Your task to perform on an android device: open chrome and create a bookmark for the current page Image 0: 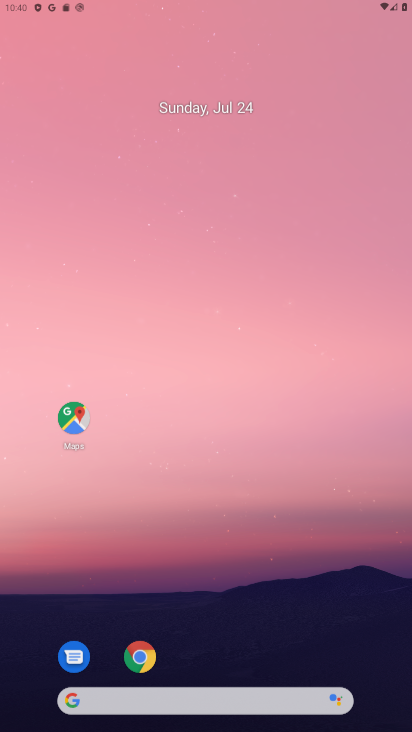
Step 0: click (274, 261)
Your task to perform on an android device: open chrome and create a bookmark for the current page Image 1: 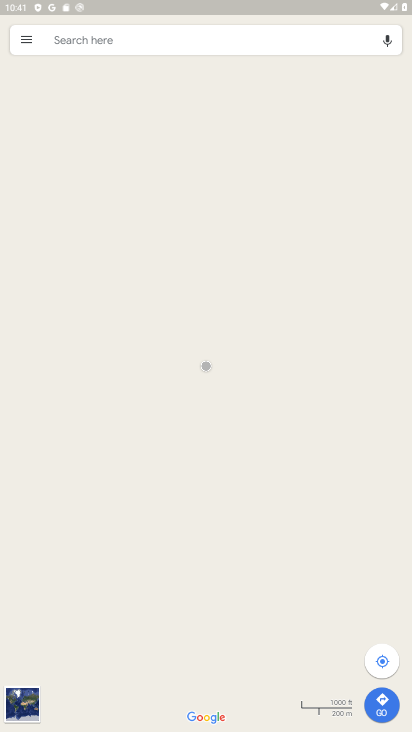
Step 1: press home button
Your task to perform on an android device: open chrome and create a bookmark for the current page Image 2: 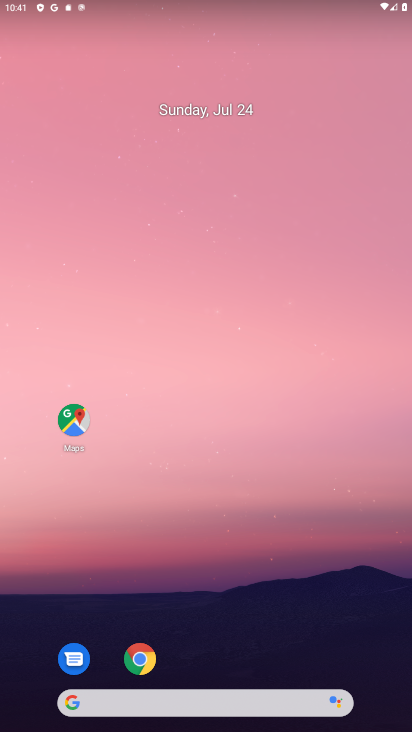
Step 2: click (141, 654)
Your task to perform on an android device: open chrome and create a bookmark for the current page Image 3: 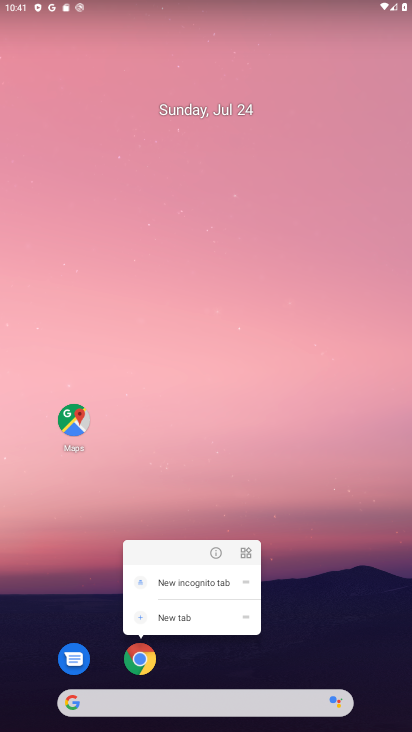
Step 3: click (144, 662)
Your task to perform on an android device: open chrome and create a bookmark for the current page Image 4: 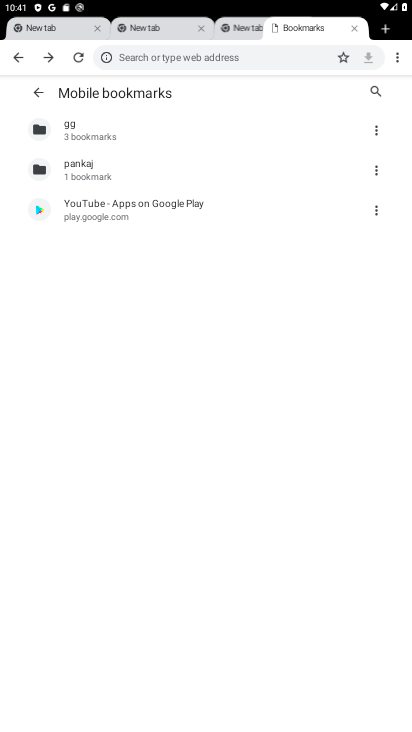
Step 4: click (394, 59)
Your task to perform on an android device: open chrome and create a bookmark for the current page Image 5: 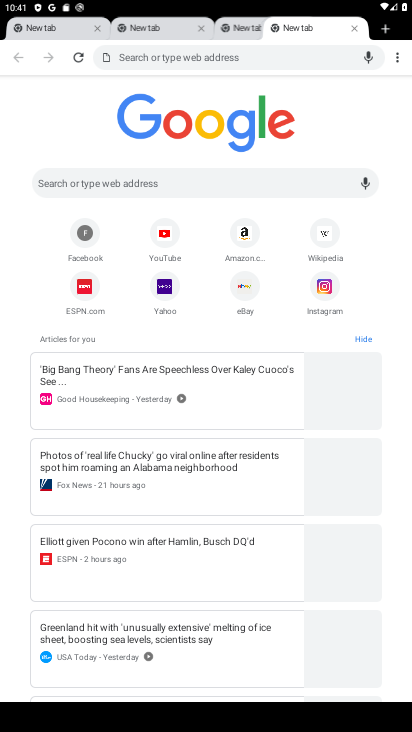
Step 5: click (394, 59)
Your task to perform on an android device: open chrome and create a bookmark for the current page Image 6: 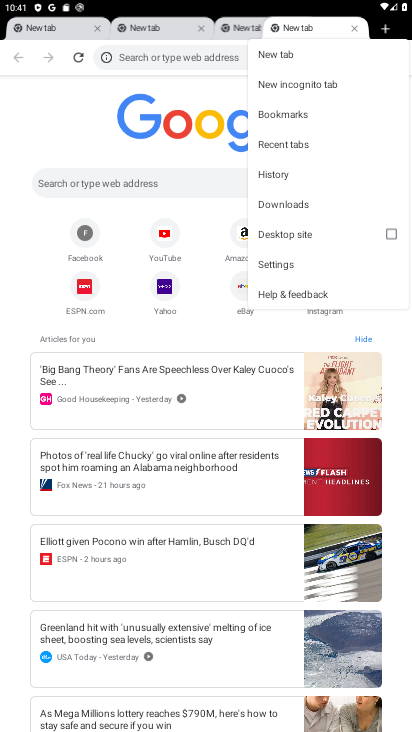
Step 6: click (176, 96)
Your task to perform on an android device: open chrome and create a bookmark for the current page Image 7: 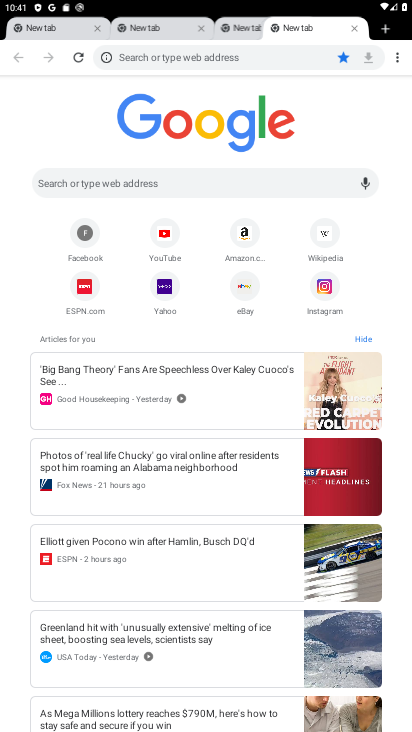
Step 7: click (343, 53)
Your task to perform on an android device: open chrome and create a bookmark for the current page Image 8: 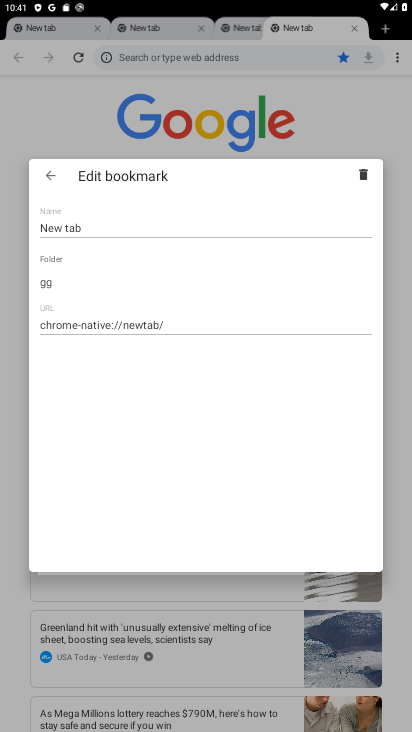
Step 8: click (343, 53)
Your task to perform on an android device: open chrome and create a bookmark for the current page Image 9: 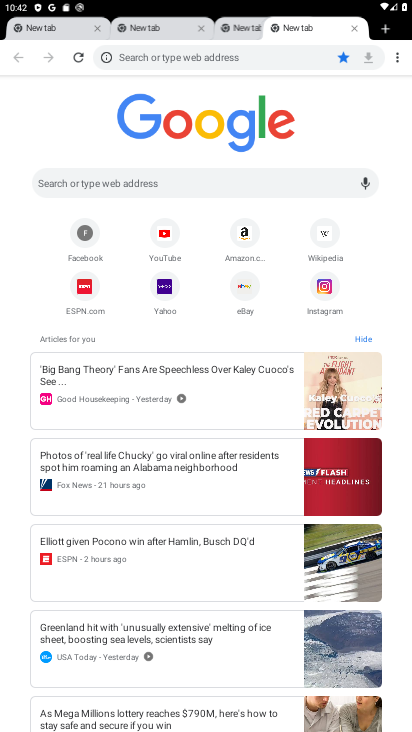
Step 9: task complete